Your task to perform on an android device: Go to Google maps Image 0: 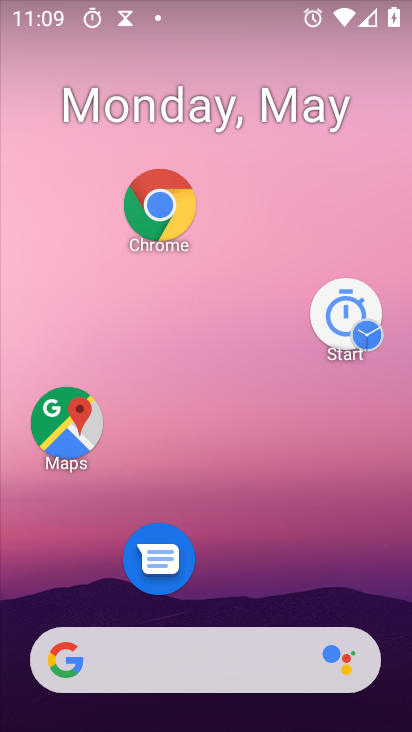
Step 0: click (131, 148)
Your task to perform on an android device: Go to Google maps Image 1: 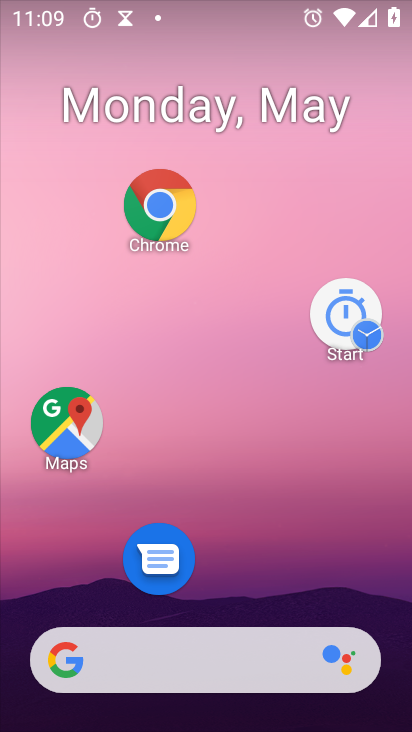
Step 1: drag from (249, 654) to (131, 220)
Your task to perform on an android device: Go to Google maps Image 2: 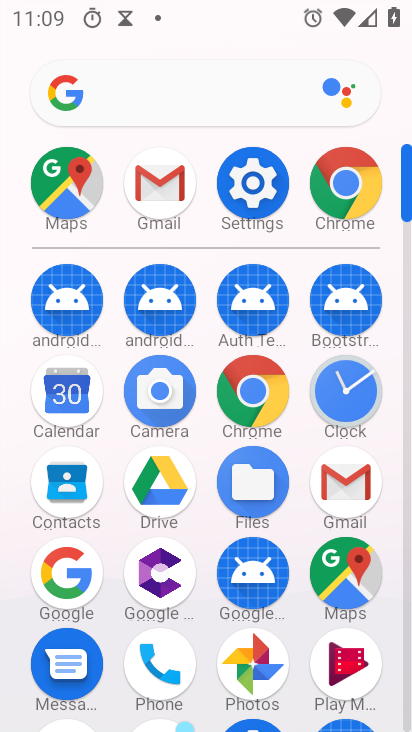
Step 2: click (338, 577)
Your task to perform on an android device: Go to Google maps Image 3: 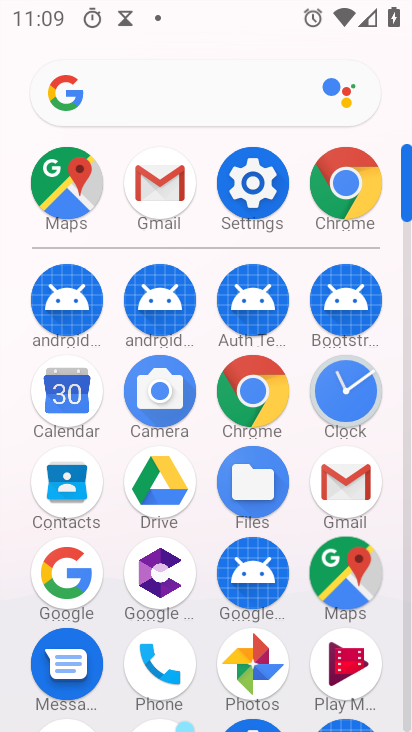
Step 3: click (347, 581)
Your task to perform on an android device: Go to Google maps Image 4: 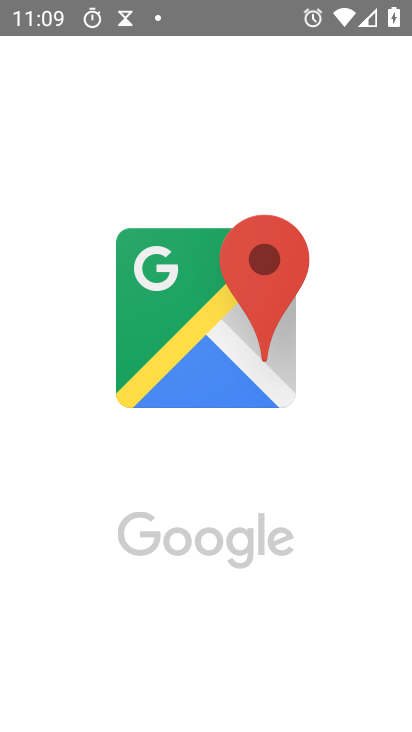
Step 4: click (338, 573)
Your task to perform on an android device: Go to Google maps Image 5: 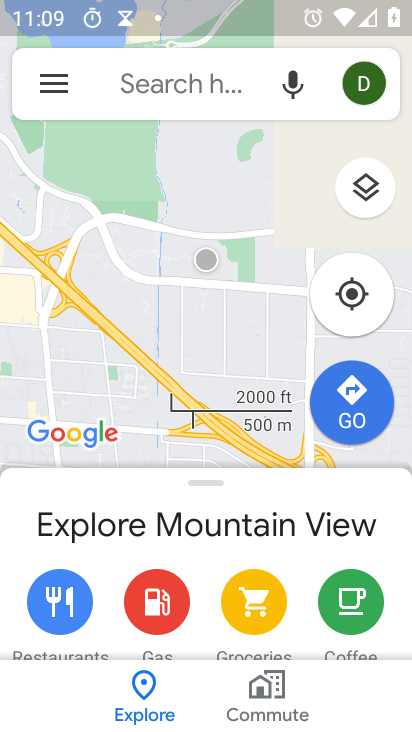
Step 5: click (114, 70)
Your task to perform on an android device: Go to Google maps Image 6: 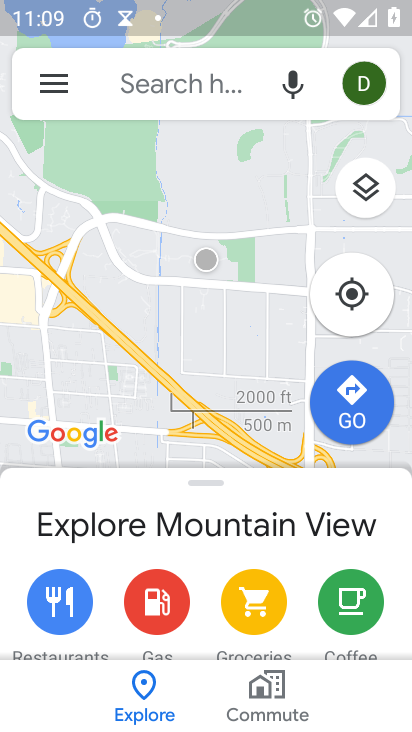
Step 6: click (119, 78)
Your task to perform on an android device: Go to Google maps Image 7: 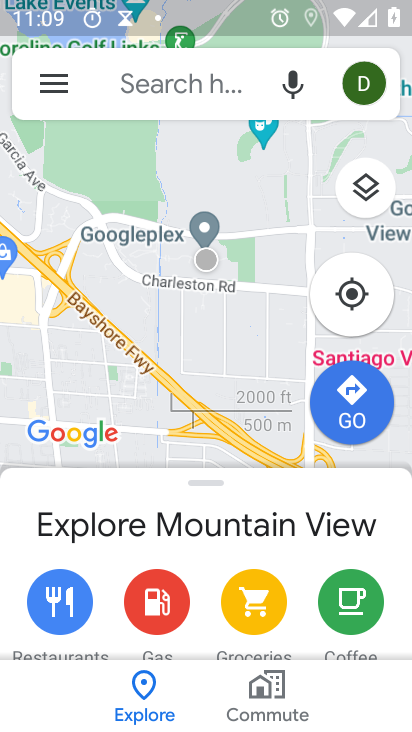
Step 7: click (119, 80)
Your task to perform on an android device: Go to Google maps Image 8: 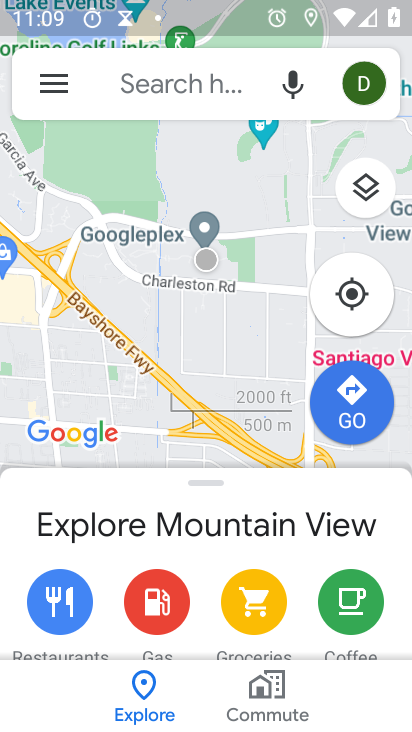
Step 8: click (120, 105)
Your task to perform on an android device: Go to Google maps Image 9: 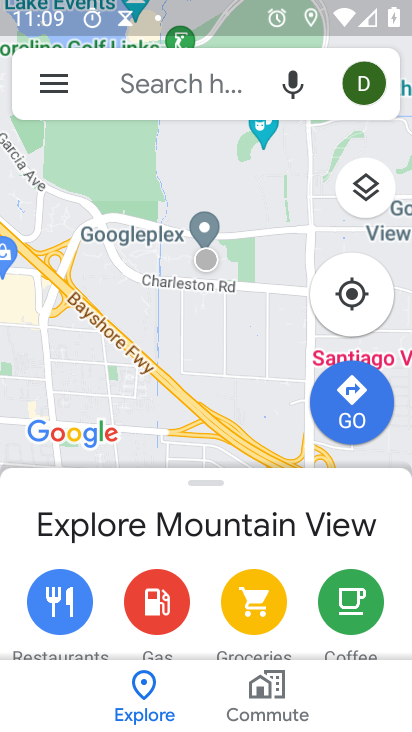
Step 9: click (115, 92)
Your task to perform on an android device: Go to Google maps Image 10: 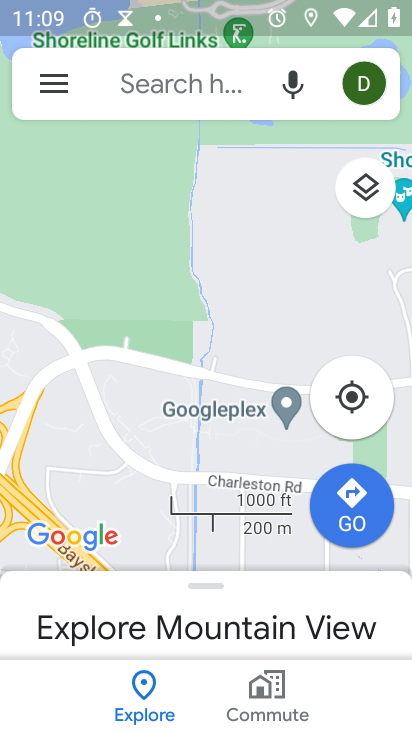
Step 10: click (116, 87)
Your task to perform on an android device: Go to Google maps Image 11: 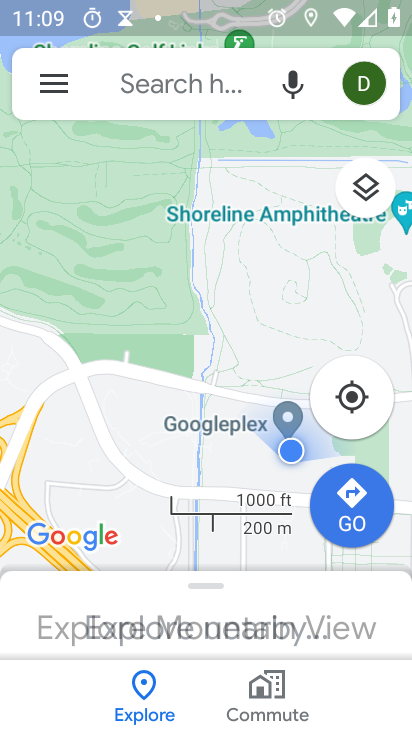
Step 11: click (135, 79)
Your task to perform on an android device: Go to Google maps Image 12: 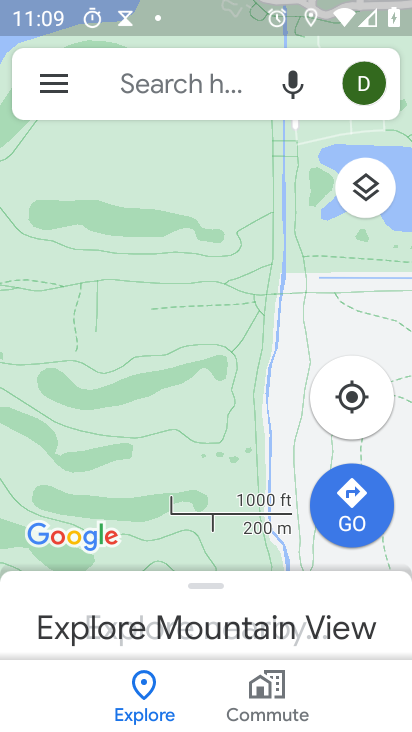
Step 12: click (131, 78)
Your task to perform on an android device: Go to Google maps Image 13: 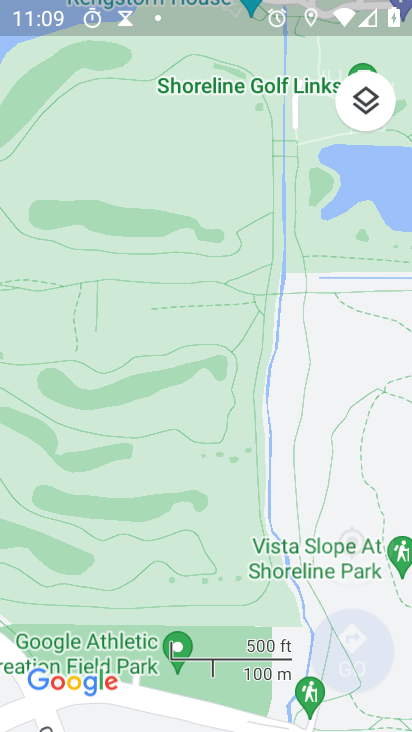
Step 13: click (130, 80)
Your task to perform on an android device: Go to Google maps Image 14: 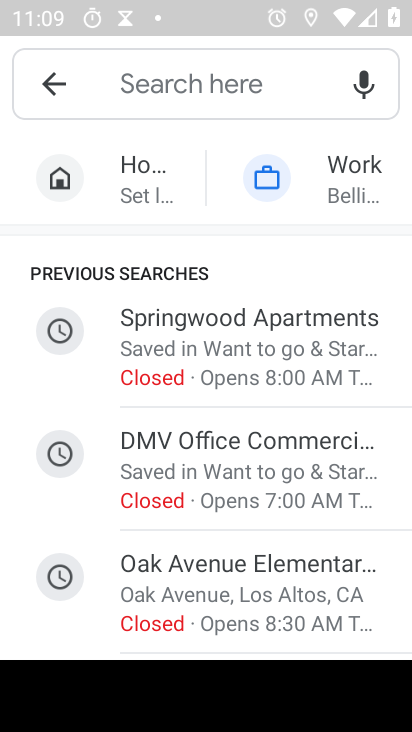
Step 14: click (45, 74)
Your task to perform on an android device: Go to Google maps Image 15: 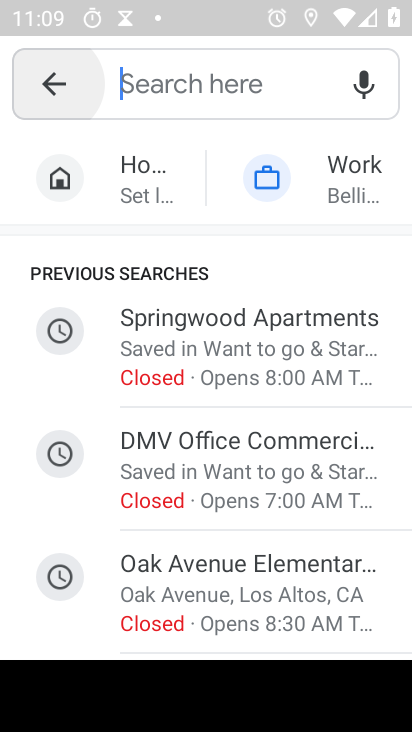
Step 15: click (50, 79)
Your task to perform on an android device: Go to Google maps Image 16: 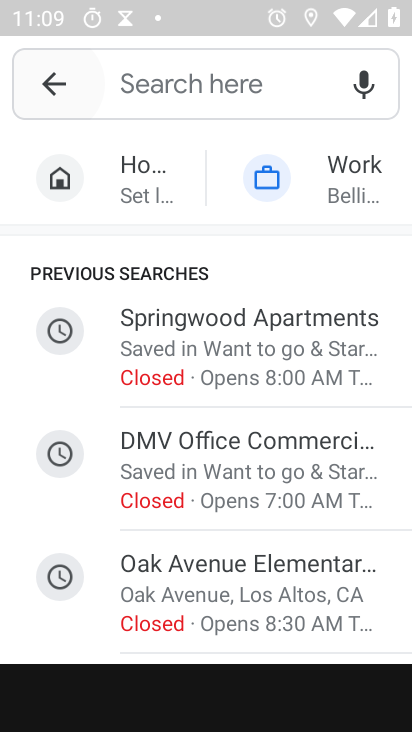
Step 16: click (55, 83)
Your task to perform on an android device: Go to Google maps Image 17: 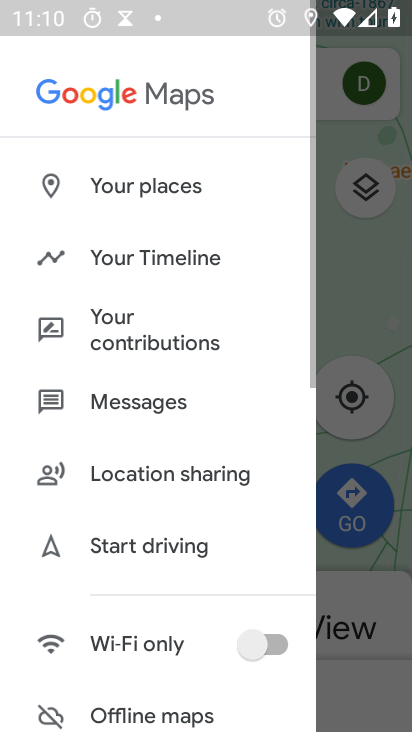
Step 17: task complete